Your task to perform on an android device: Open notification settings Image 0: 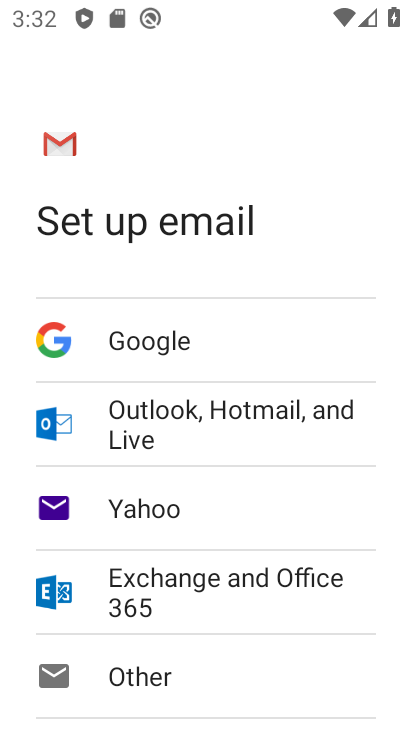
Step 0: press home button
Your task to perform on an android device: Open notification settings Image 1: 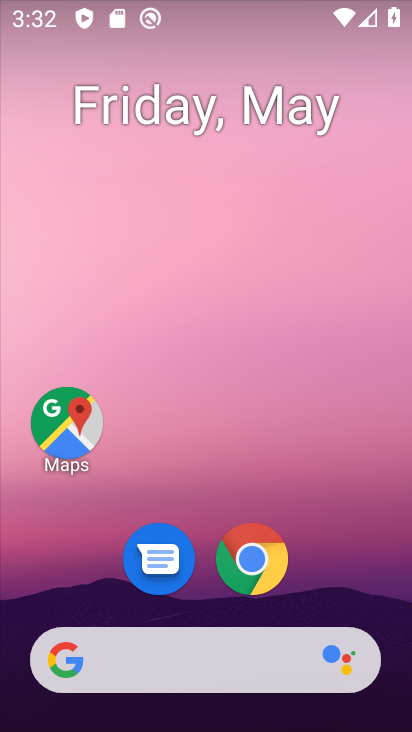
Step 1: drag from (315, 547) to (297, 177)
Your task to perform on an android device: Open notification settings Image 2: 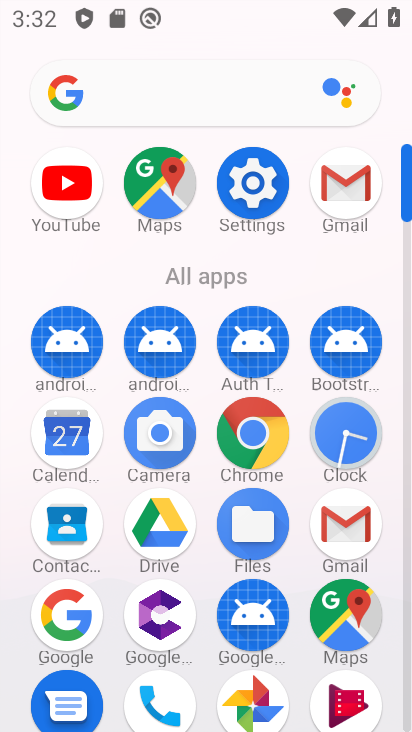
Step 2: click (248, 181)
Your task to perform on an android device: Open notification settings Image 3: 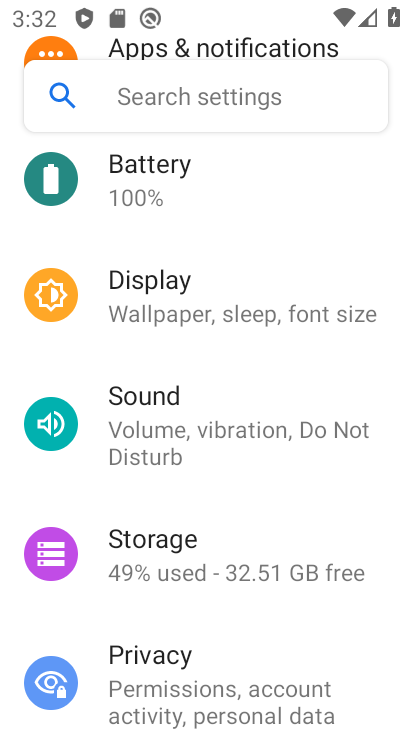
Step 3: drag from (242, 185) to (212, 632)
Your task to perform on an android device: Open notification settings Image 4: 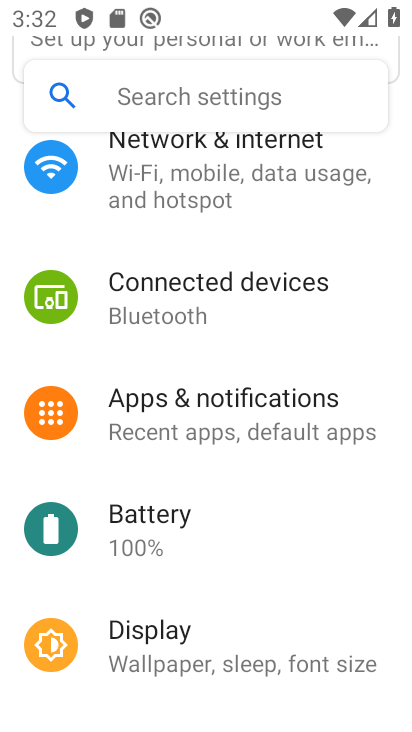
Step 4: click (260, 441)
Your task to perform on an android device: Open notification settings Image 5: 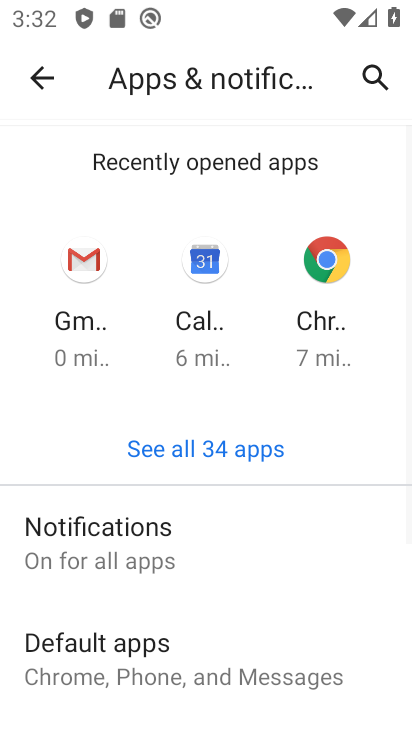
Step 5: drag from (329, 607) to (304, 283)
Your task to perform on an android device: Open notification settings Image 6: 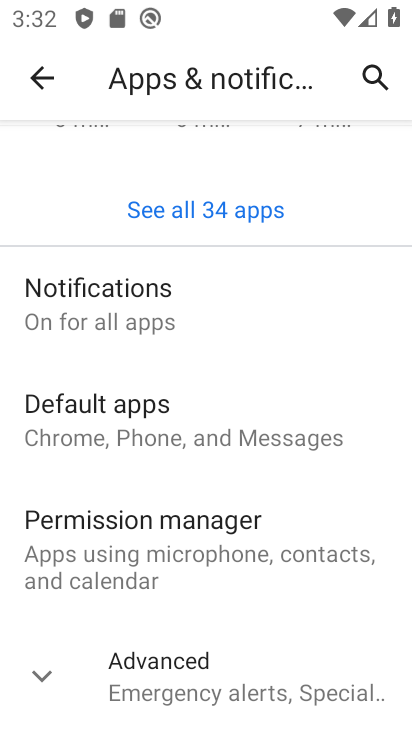
Step 6: click (202, 331)
Your task to perform on an android device: Open notification settings Image 7: 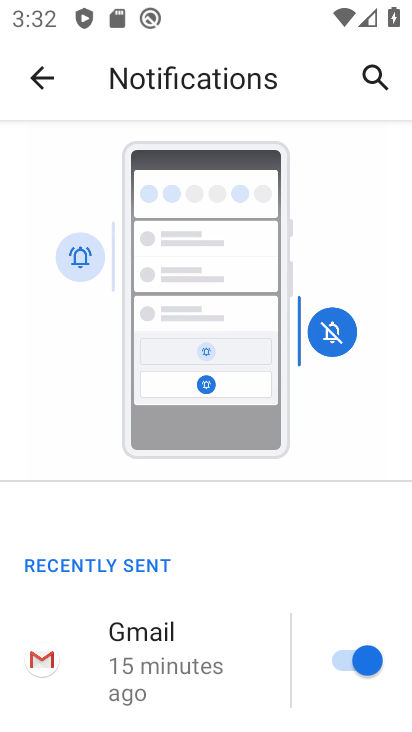
Step 7: task complete